Your task to perform on an android device: turn off data saver in the chrome app Image 0: 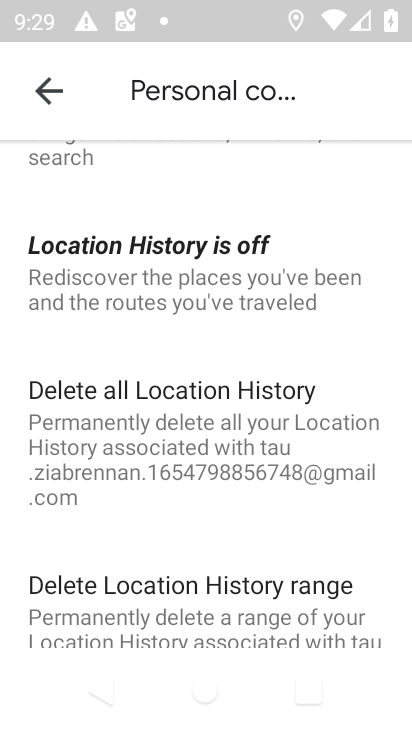
Step 0: press home button
Your task to perform on an android device: turn off data saver in the chrome app Image 1: 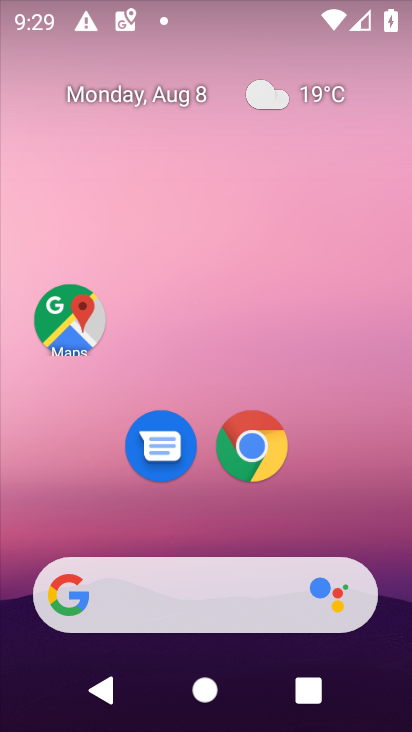
Step 1: click (249, 442)
Your task to perform on an android device: turn off data saver in the chrome app Image 2: 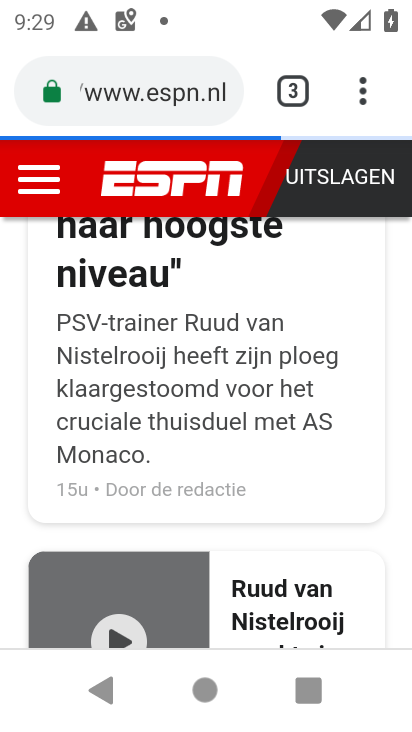
Step 2: click (357, 109)
Your task to perform on an android device: turn off data saver in the chrome app Image 3: 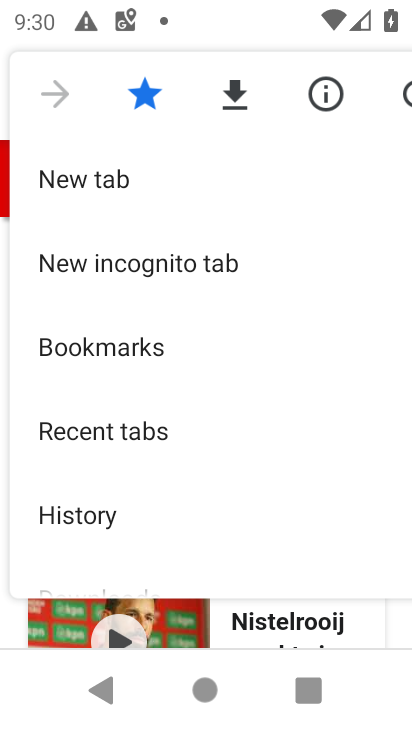
Step 3: drag from (188, 506) to (197, 204)
Your task to perform on an android device: turn off data saver in the chrome app Image 4: 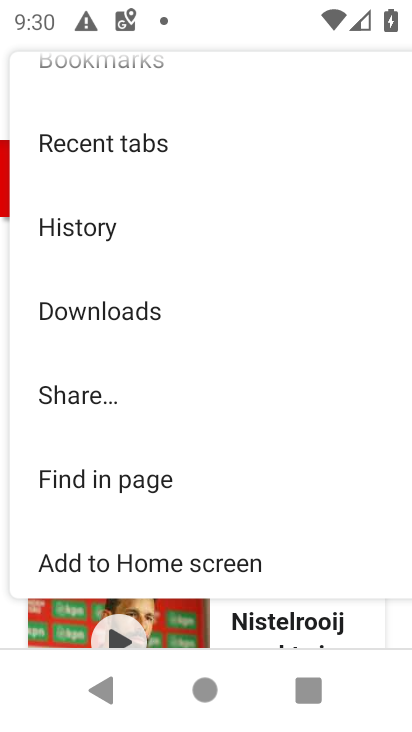
Step 4: drag from (162, 538) to (197, 235)
Your task to perform on an android device: turn off data saver in the chrome app Image 5: 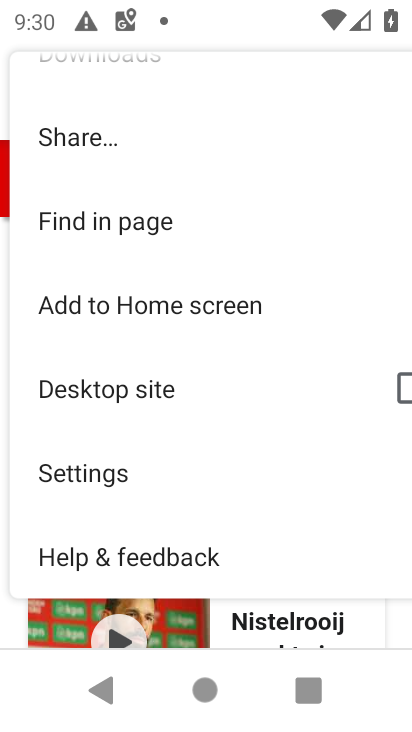
Step 5: click (79, 476)
Your task to perform on an android device: turn off data saver in the chrome app Image 6: 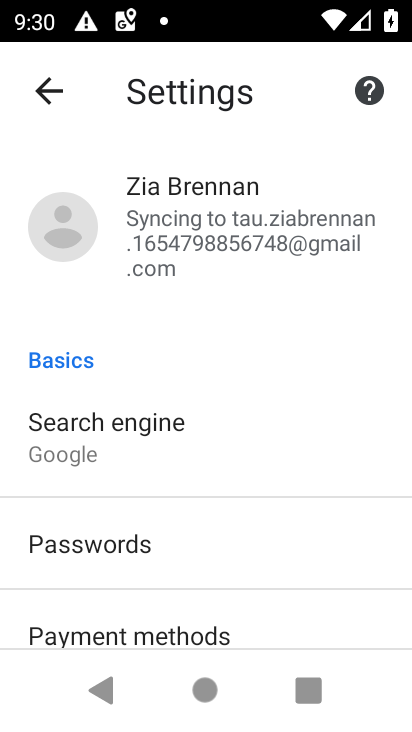
Step 6: drag from (206, 588) to (224, 235)
Your task to perform on an android device: turn off data saver in the chrome app Image 7: 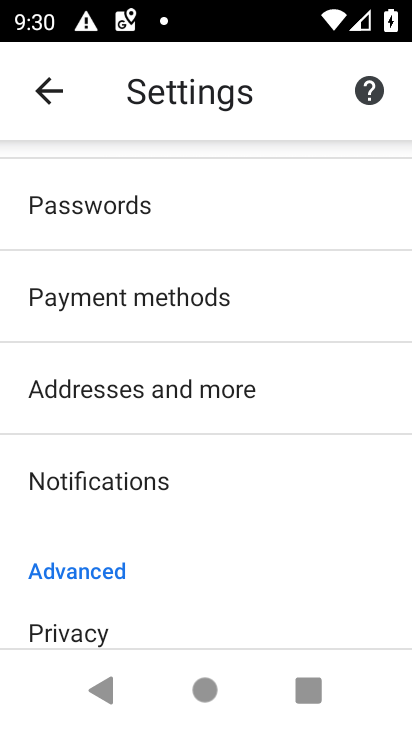
Step 7: drag from (203, 594) to (231, 281)
Your task to perform on an android device: turn off data saver in the chrome app Image 8: 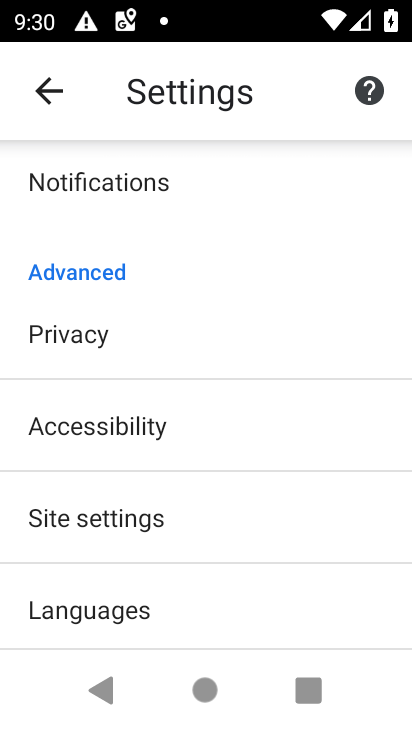
Step 8: drag from (113, 610) to (165, 347)
Your task to perform on an android device: turn off data saver in the chrome app Image 9: 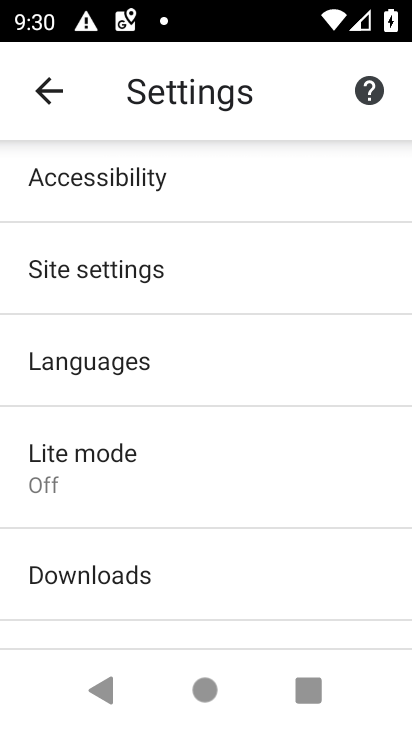
Step 9: click (77, 459)
Your task to perform on an android device: turn off data saver in the chrome app Image 10: 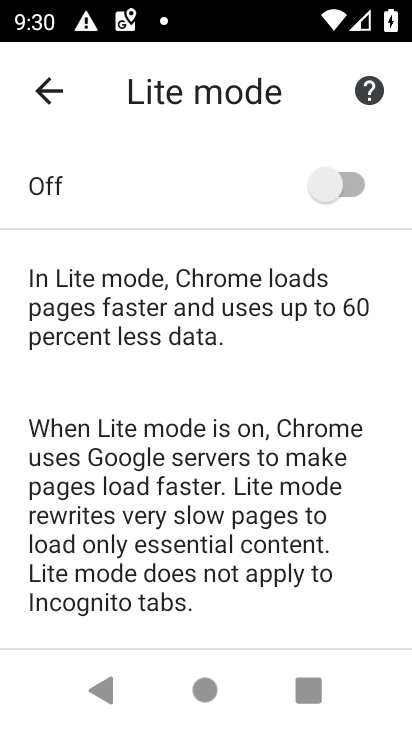
Step 10: task complete